Your task to perform on an android device: change timer sound Image 0: 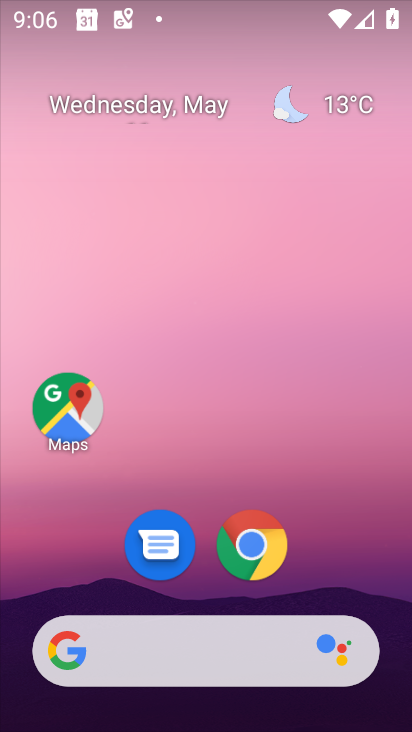
Step 0: drag from (342, 560) to (204, 11)
Your task to perform on an android device: change timer sound Image 1: 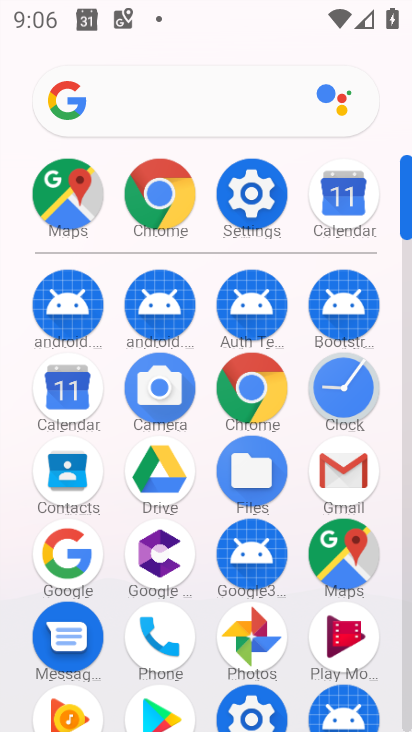
Step 1: drag from (11, 566) to (6, 245)
Your task to perform on an android device: change timer sound Image 2: 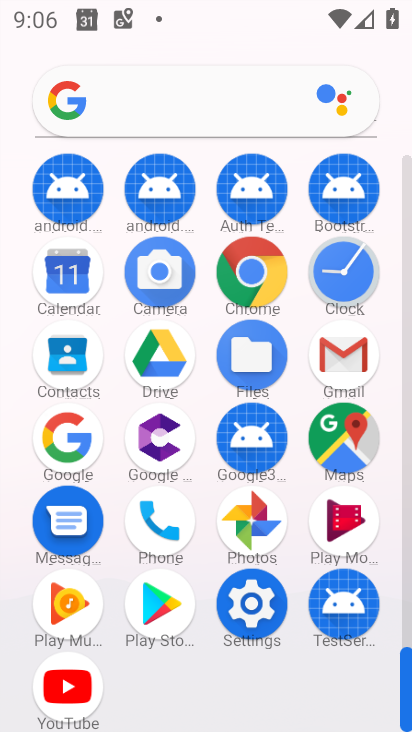
Step 2: click (341, 271)
Your task to perform on an android device: change timer sound Image 3: 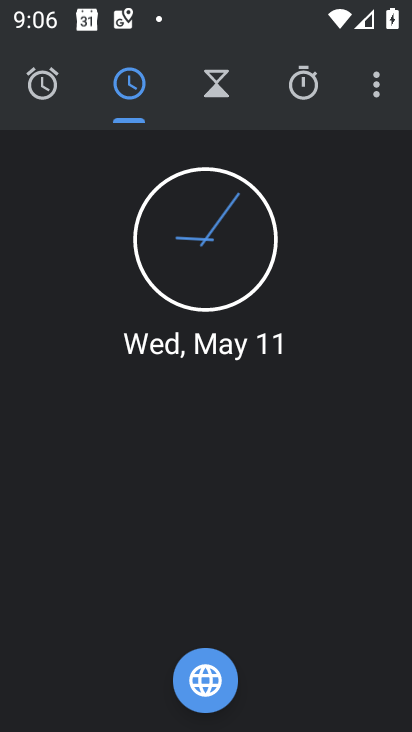
Step 3: drag from (382, 91) to (298, 167)
Your task to perform on an android device: change timer sound Image 4: 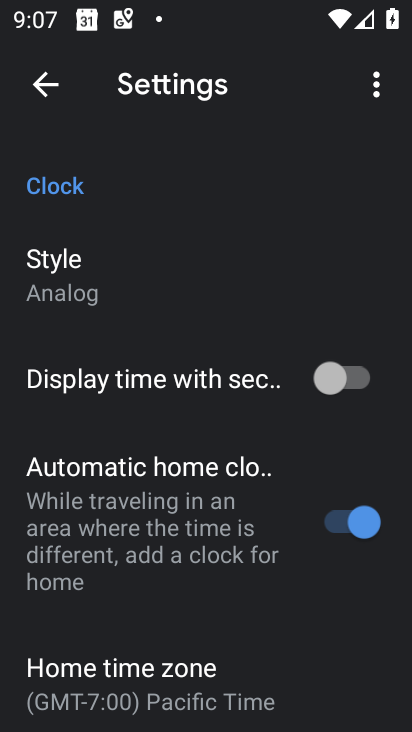
Step 4: drag from (231, 534) to (220, 184)
Your task to perform on an android device: change timer sound Image 5: 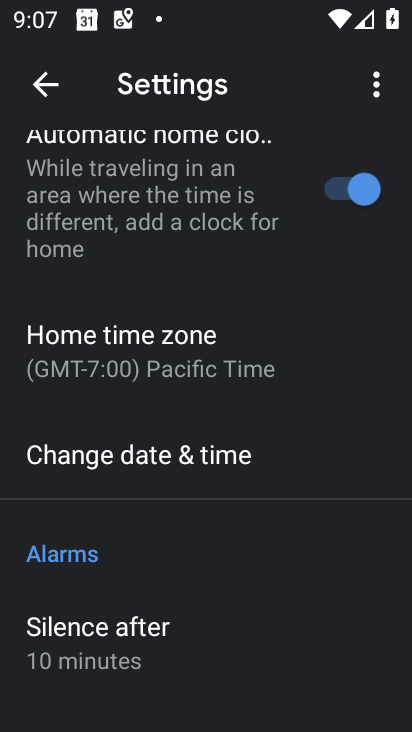
Step 5: drag from (206, 578) to (144, 196)
Your task to perform on an android device: change timer sound Image 6: 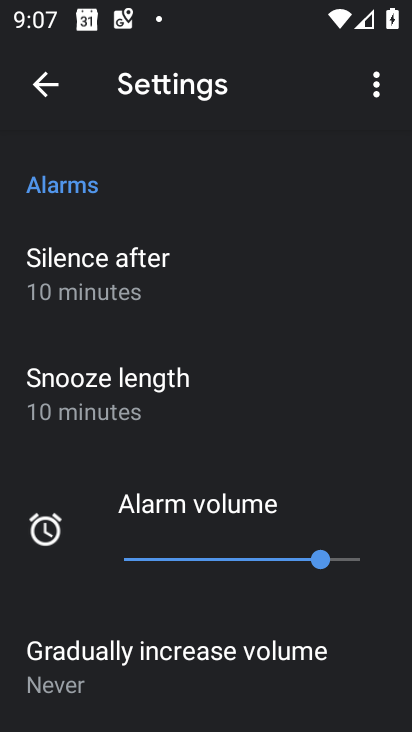
Step 6: drag from (220, 433) to (224, 141)
Your task to perform on an android device: change timer sound Image 7: 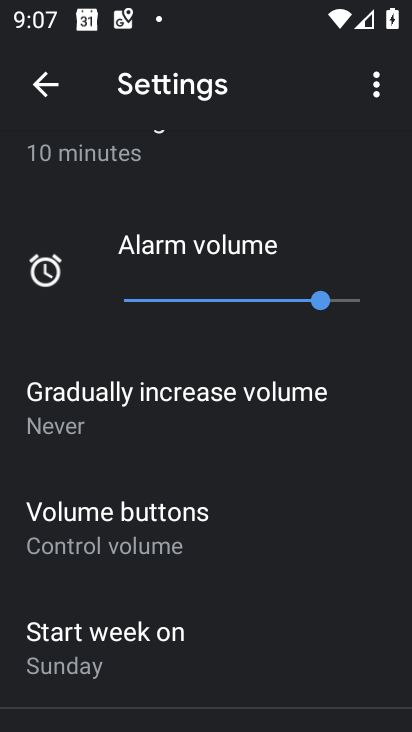
Step 7: drag from (212, 565) to (210, 208)
Your task to perform on an android device: change timer sound Image 8: 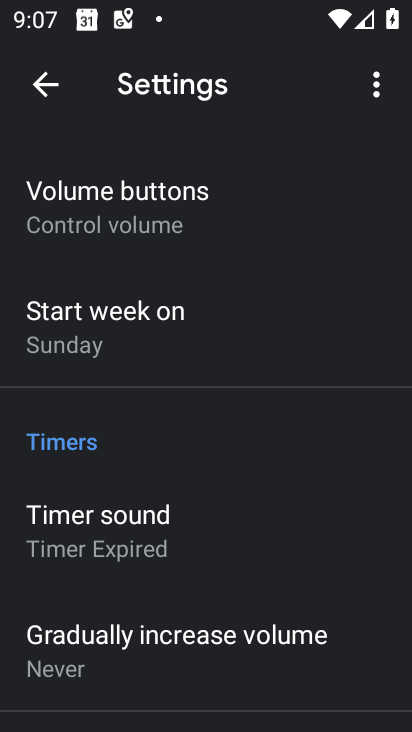
Step 8: click (153, 512)
Your task to perform on an android device: change timer sound Image 9: 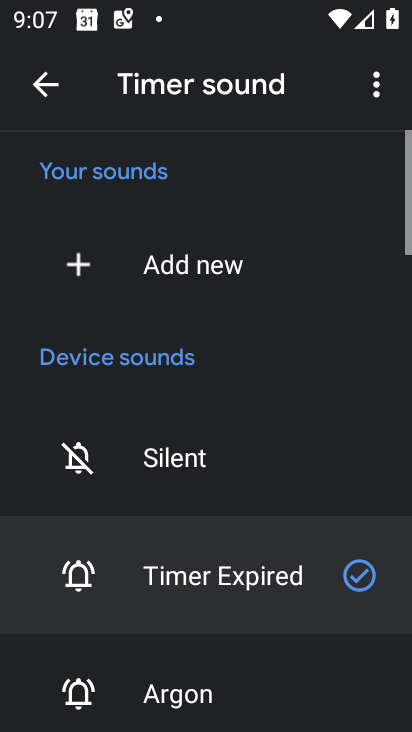
Step 9: drag from (182, 631) to (222, 233)
Your task to perform on an android device: change timer sound Image 10: 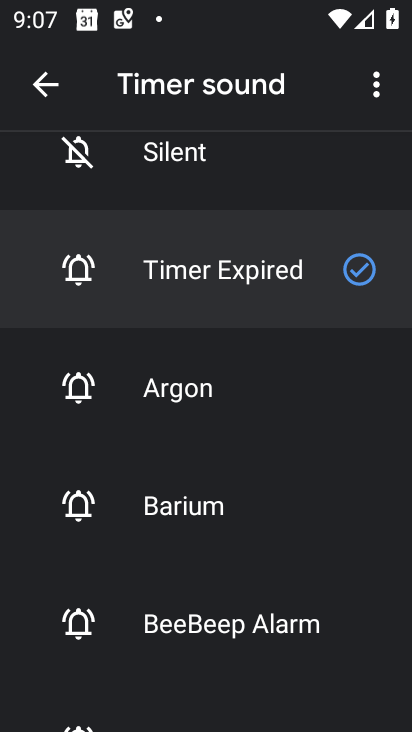
Step 10: click (212, 499)
Your task to perform on an android device: change timer sound Image 11: 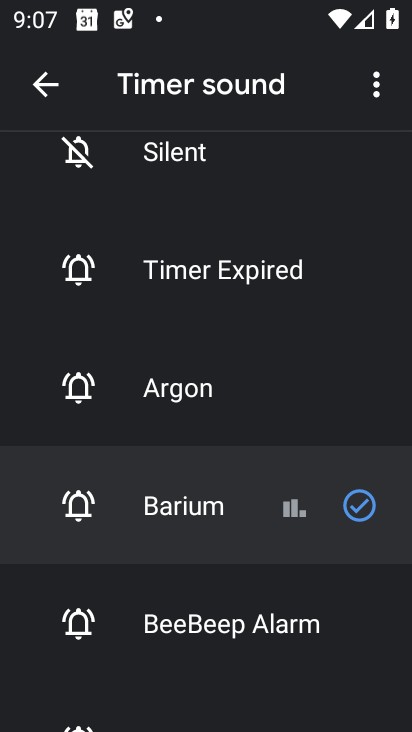
Step 11: task complete